Your task to perform on an android device: Show me the alarms in the clock app Image 0: 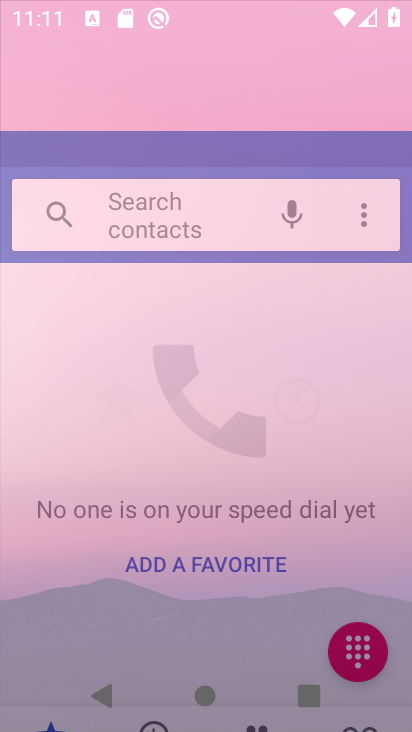
Step 0: press home button
Your task to perform on an android device: Show me the alarms in the clock app Image 1: 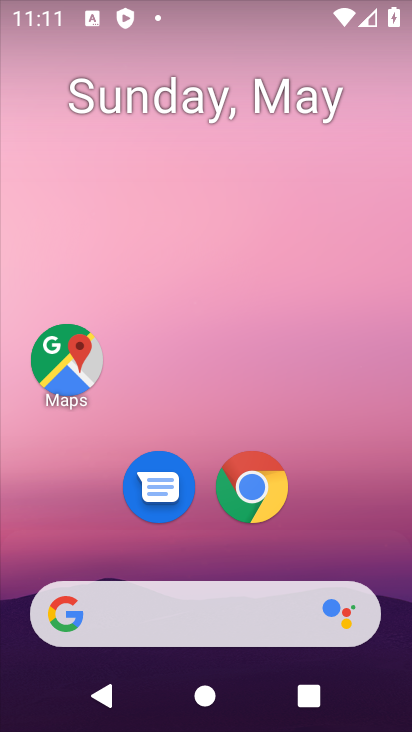
Step 1: drag from (164, 639) to (198, 184)
Your task to perform on an android device: Show me the alarms in the clock app Image 2: 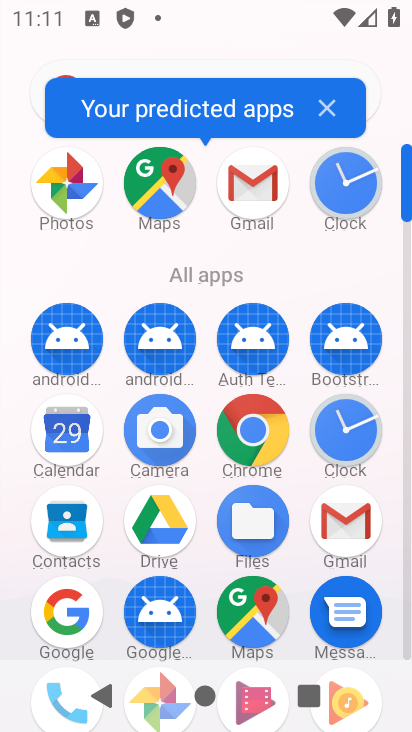
Step 2: click (342, 455)
Your task to perform on an android device: Show me the alarms in the clock app Image 3: 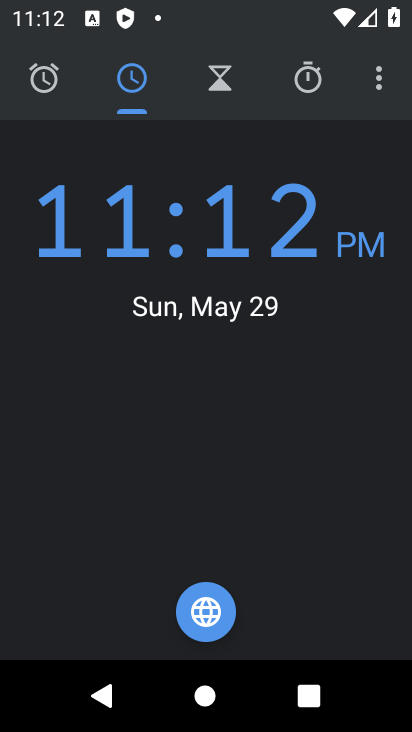
Step 3: click (55, 77)
Your task to perform on an android device: Show me the alarms in the clock app Image 4: 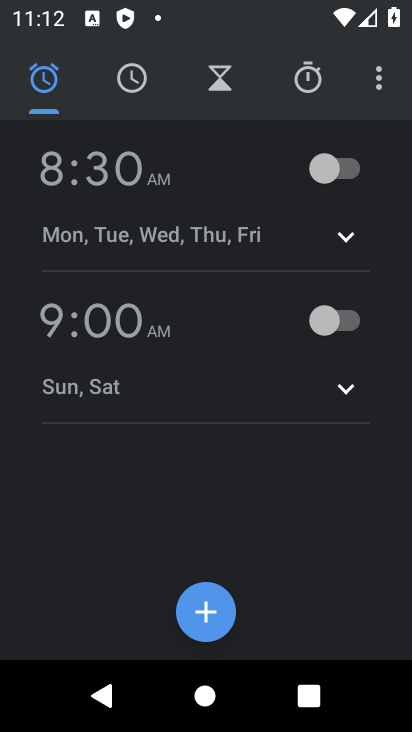
Step 4: task complete